Your task to perform on an android device: delete the emails in spam in the gmail app Image 0: 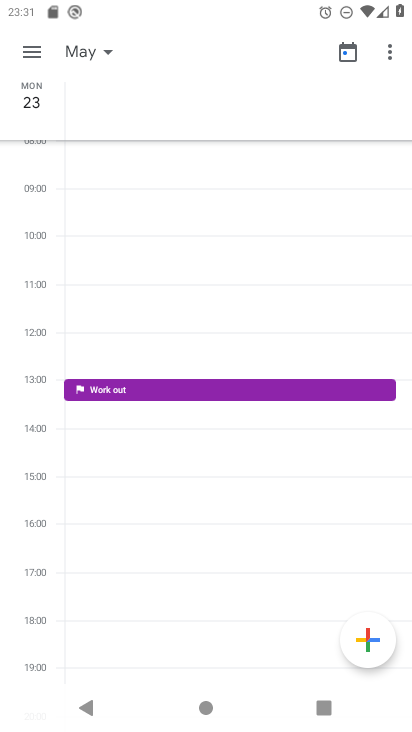
Step 0: press home button
Your task to perform on an android device: delete the emails in spam in the gmail app Image 1: 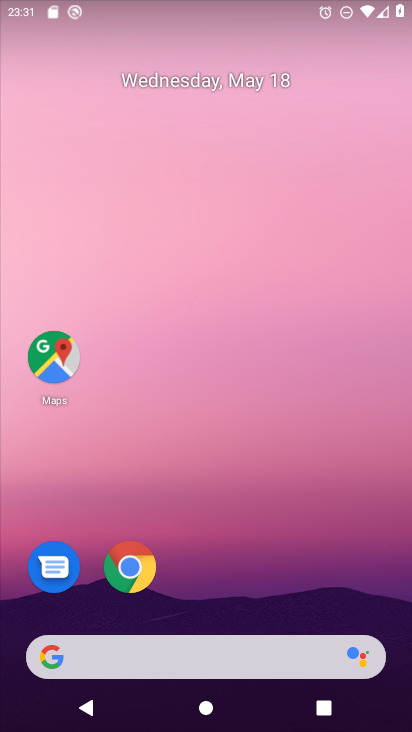
Step 1: drag from (270, 678) to (258, 207)
Your task to perform on an android device: delete the emails in spam in the gmail app Image 2: 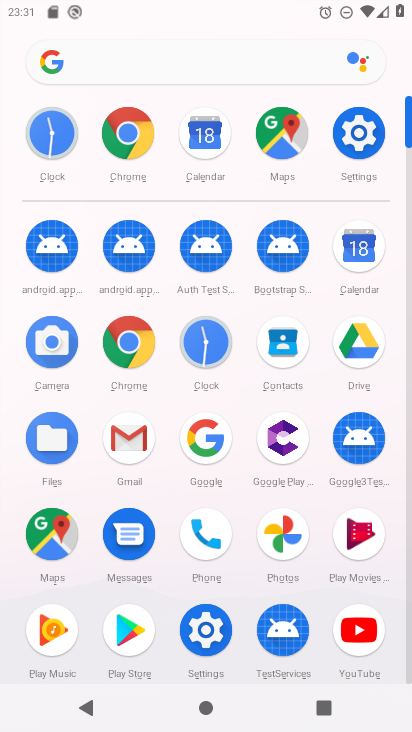
Step 2: click (116, 130)
Your task to perform on an android device: delete the emails in spam in the gmail app Image 3: 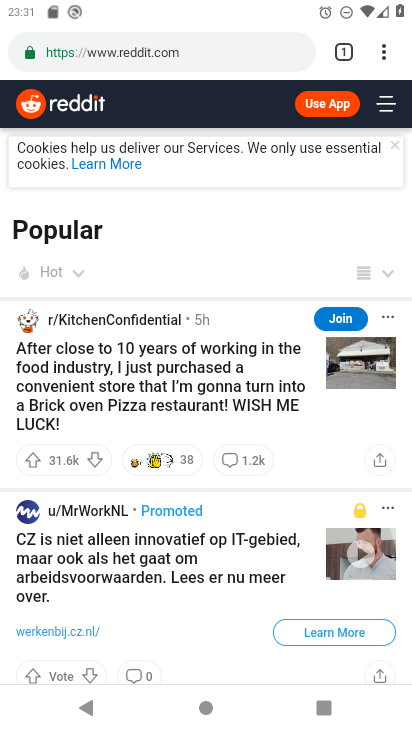
Step 3: click (382, 55)
Your task to perform on an android device: delete the emails in spam in the gmail app Image 4: 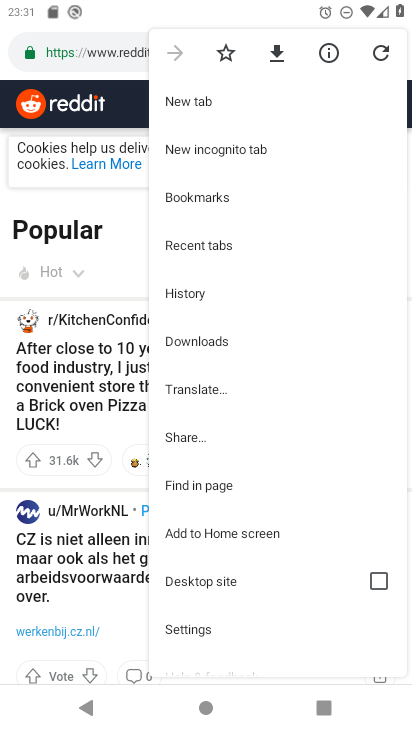
Step 4: press home button
Your task to perform on an android device: delete the emails in spam in the gmail app Image 5: 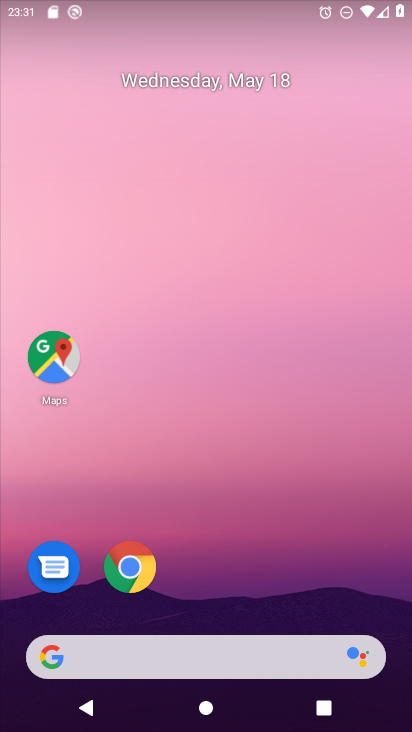
Step 5: drag from (276, 683) to (344, 117)
Your task to perform on an android device: delete the emails in spam in the gmail app Image 6: 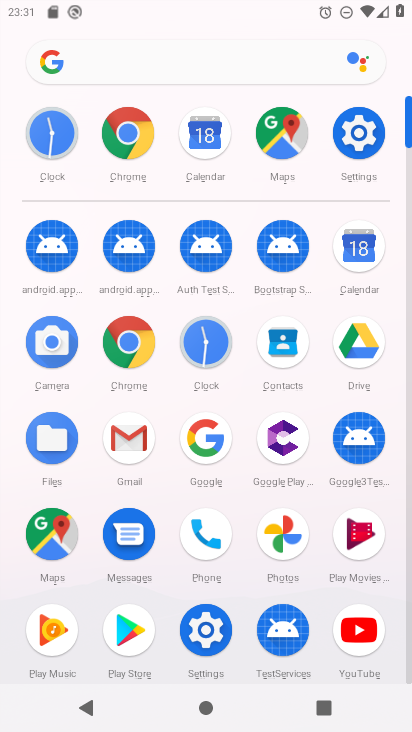
Step 6: click (125, 411)
Your task to perform on an android device: delete the emails in spam in the gmail app Image 7: 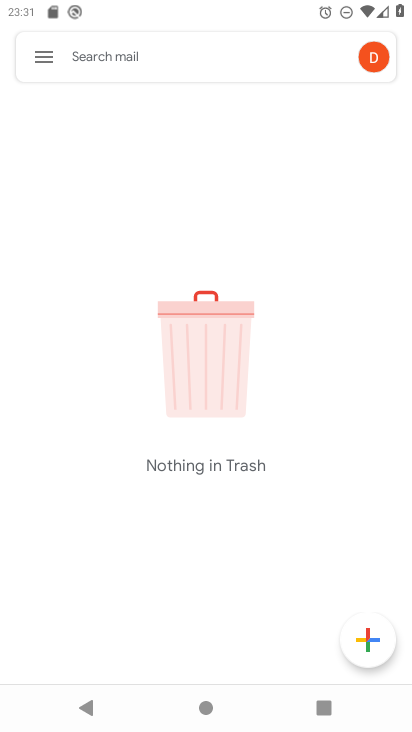
Step 7: click (41, 58)
Your task to perform on an android device: delete the emails in spam in the gmail app Image 8: 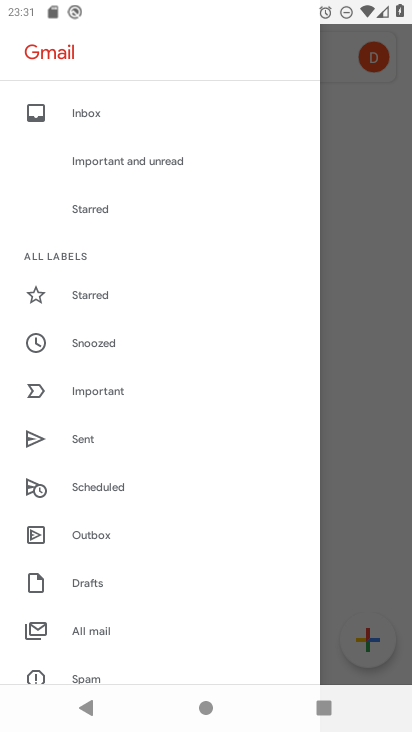
Step 8: click (95, 672)
Your task to perform on an android device: delete the emails in spam in the gmail app Image 9: 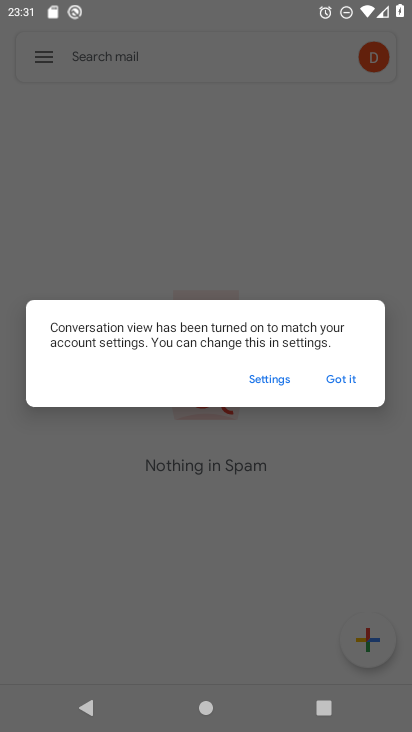
Step 9: click (342, 372)
Your task to perform on an android device: delete the emails in spam in the gmail app Image 10: 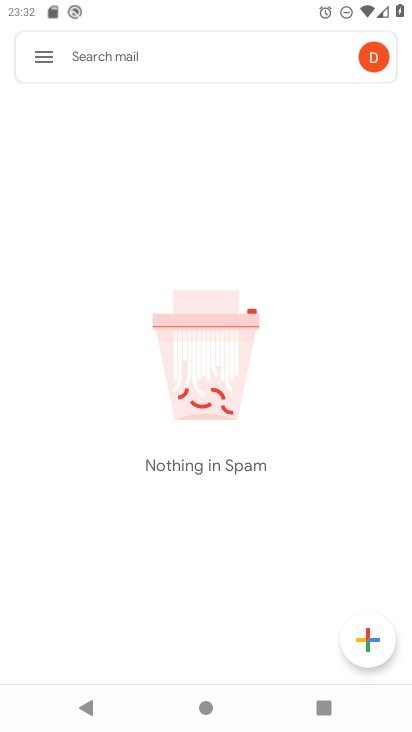
Step 10: task complete